Your task to perform on an android device: Go to notification settings Image 0: 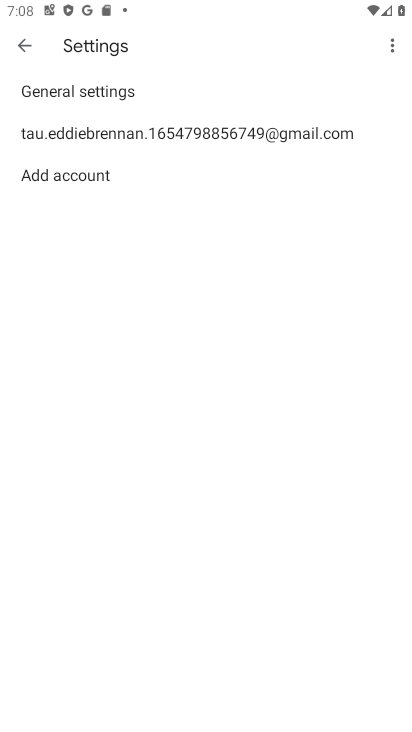
Step 0: press home button
Your task to perform on an android device: Go to notification settings Image 1: 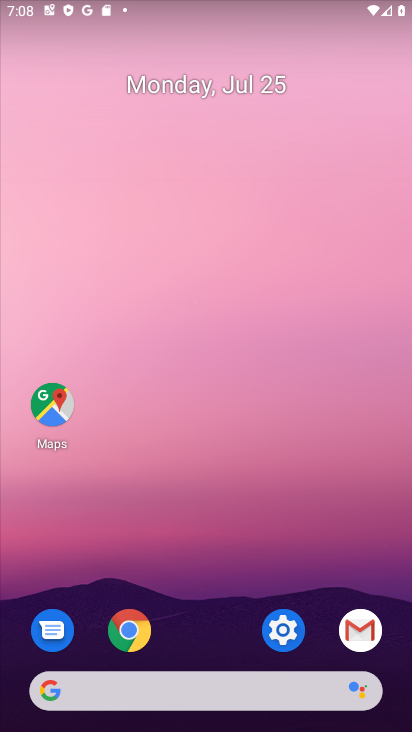
Step 1: click (275, 653)
Your task to perform on an android device: Go to notification settings Image 2: 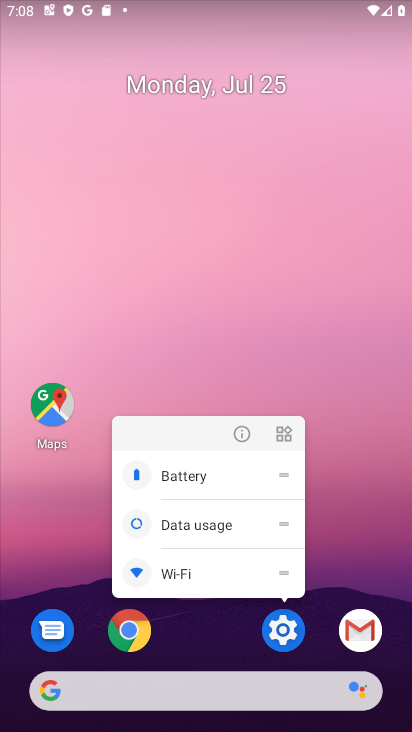
Step 2: click (281, 631)
Your task to perform on an android device: Go to notification settings Image 3: 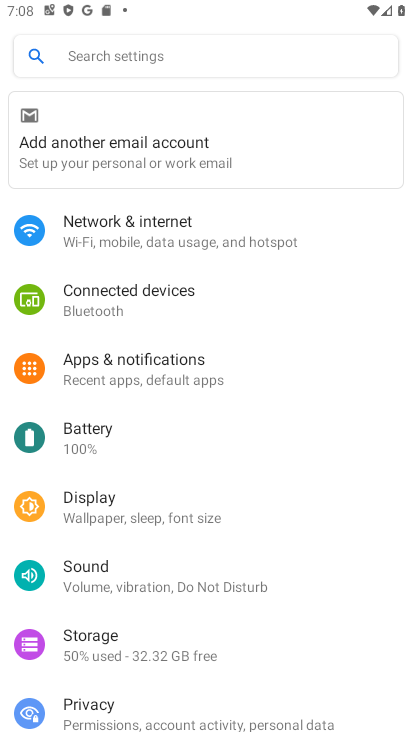
Step 3: click (112, 65)
Your task to perform on an android device: Go to notification settings Image 4: 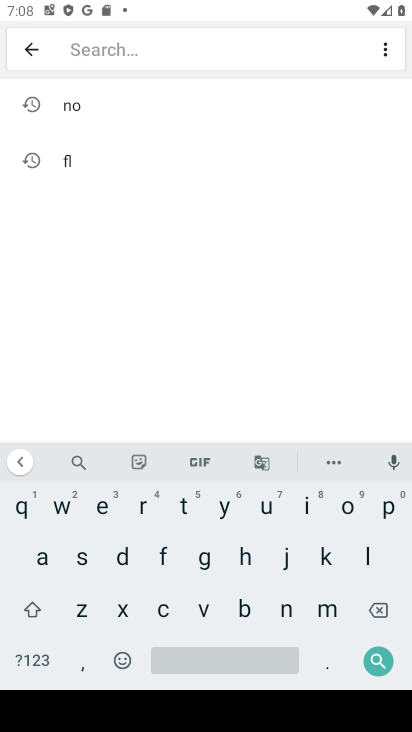
Step 4: click (83, 102)
Your task to perform on an android device: Go to notification settings Image 5: 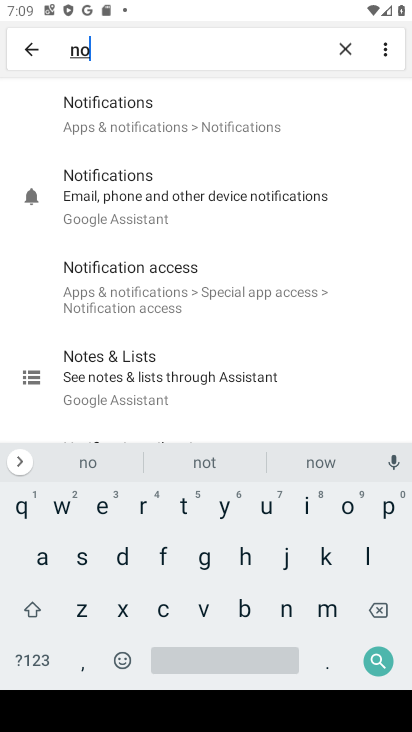
Step 5: click (108, 120)
Your task to perform on an android device: Go to notification settings Image 6: 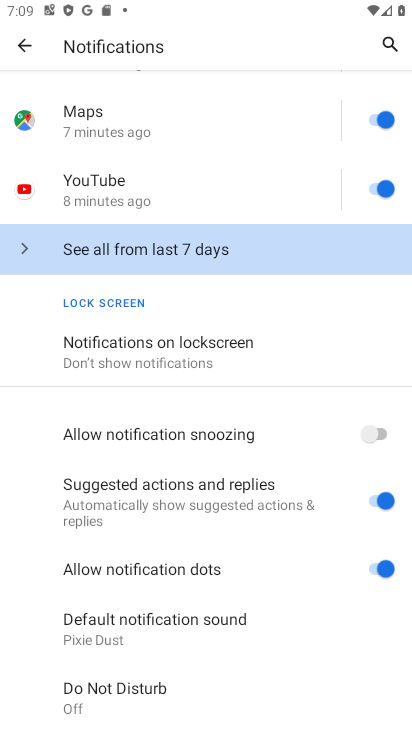
Step 6: click (126, 359)
Your task to perform on an android device: Go to notification settings Image 7: 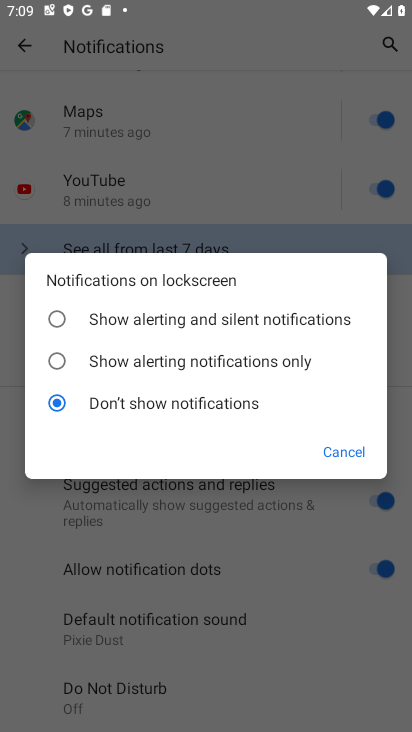
Step 7: task complete